Your task to perform on an android device: read, delete, or share a saved page in the chrome app Image 0: 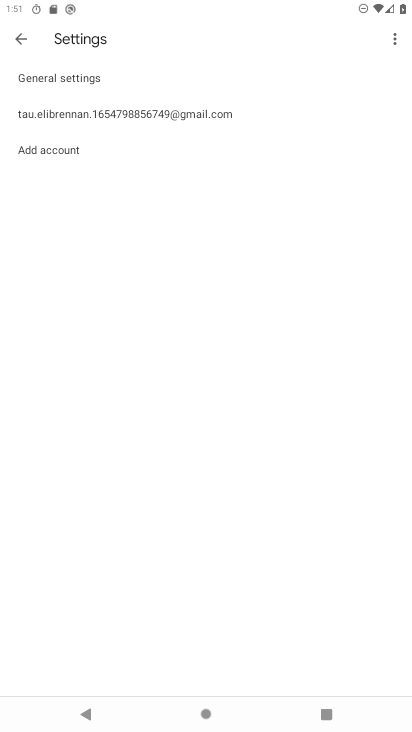
Step 0: click (23, 34)
Your task to perform on an android device: read, delete, or share a saved page in the chrome app Image 1: 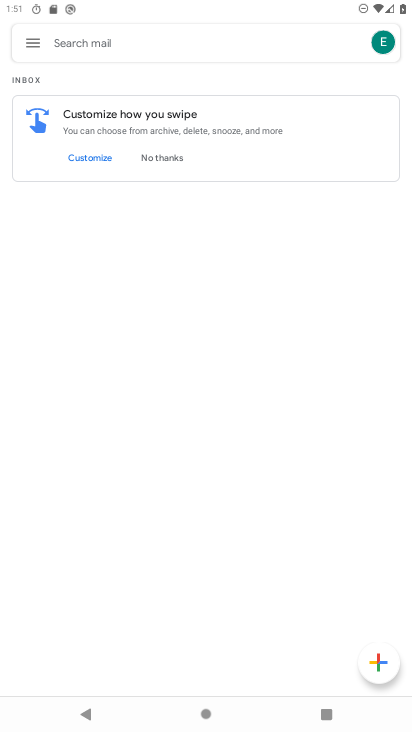
Step 1: press home button
Your task to perform on an android device: read, delete, or share a saved page in the chrome app Image 2: 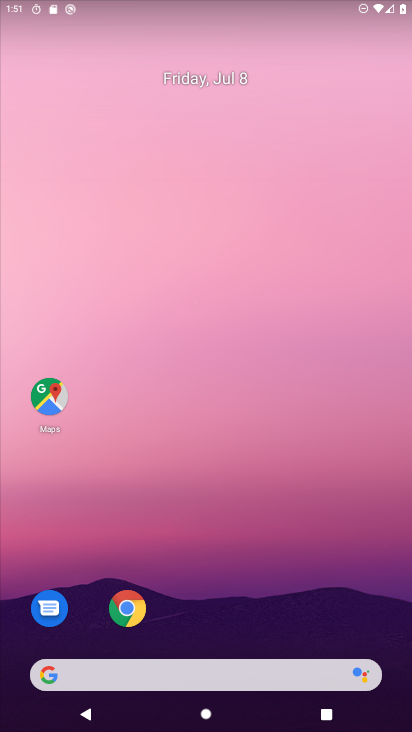
Step 2: click (123, 607)
Your task to perform on an android device: read, delete, or share a saved page in the chrome app Image 3: 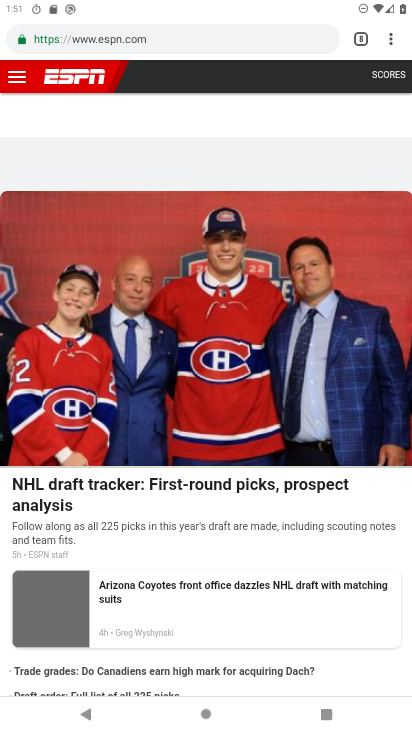
Step 3: click (391, 41)
Your task to perform on an android device: read, delete, or share a saved page in the chrome app Image 4: 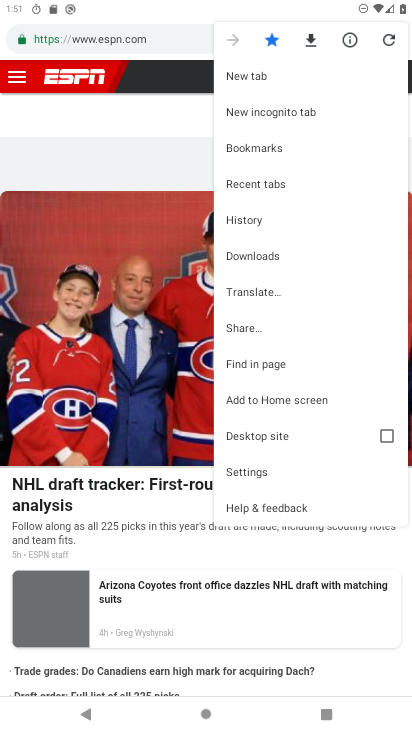
Step 4: click (249, 252)
Your task to perform on an android device: read, delete, or share a saved page in the chrome app Image 5: 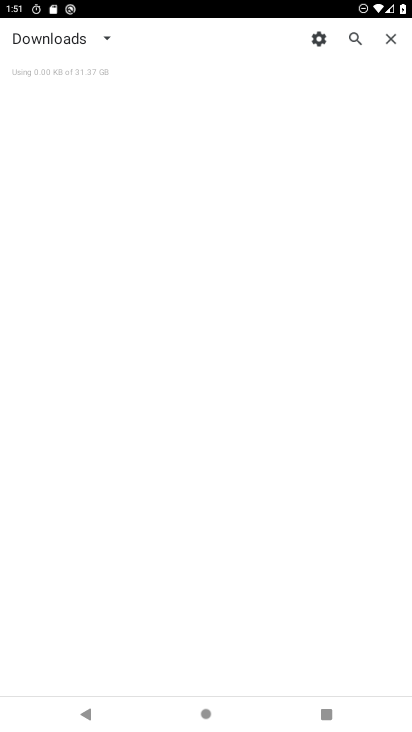
Step 5: task complete